Your task to perform on an android device: Open the map Image 0: 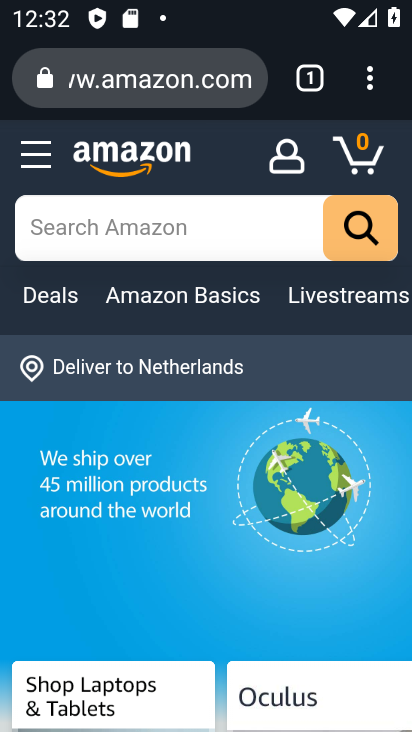
Step 0: press home button
Your task to perform on an android device: Open the map Image 1: 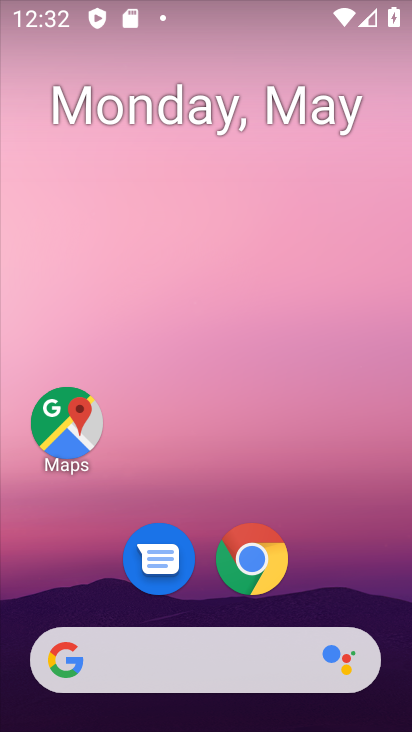
Step 1: click (74, 436)
Your task to perform on an android device: Open the map Image 2: 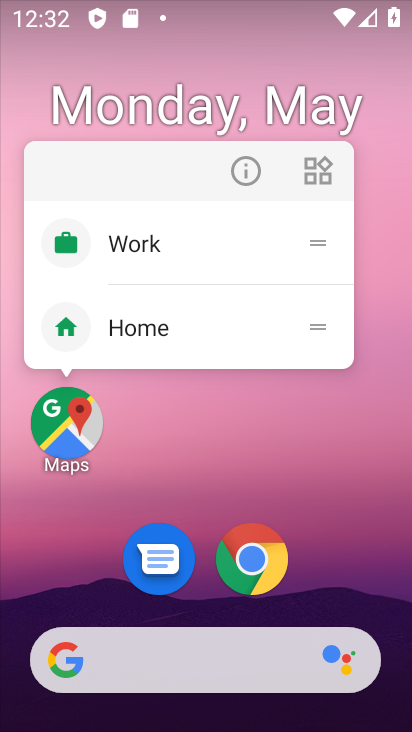
Step 2: click (74, 435)
Your task to perform on an android device: Open the map Image 3: 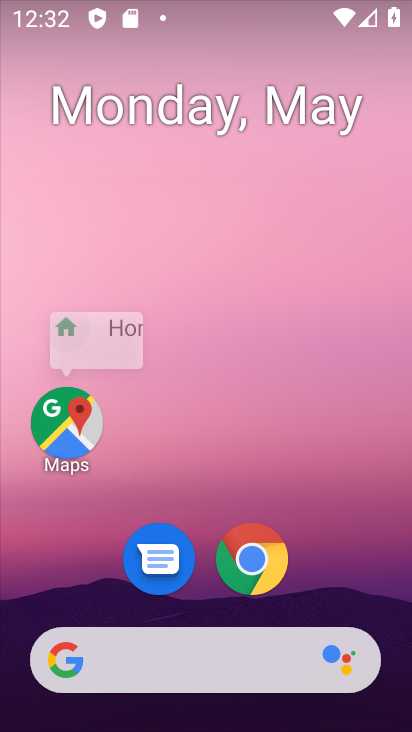
Step 3: click (74, 435)
Your task to perform on an android device: Open the map Image 4: 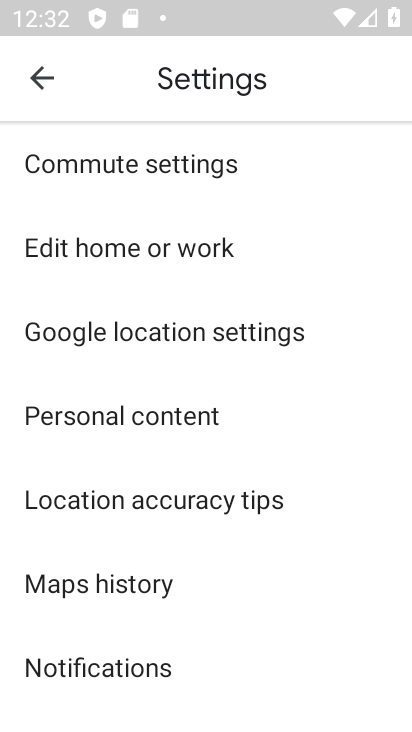
Step 4: click (51, 84)
Your task to perform on an android device: Open the map Image 5: 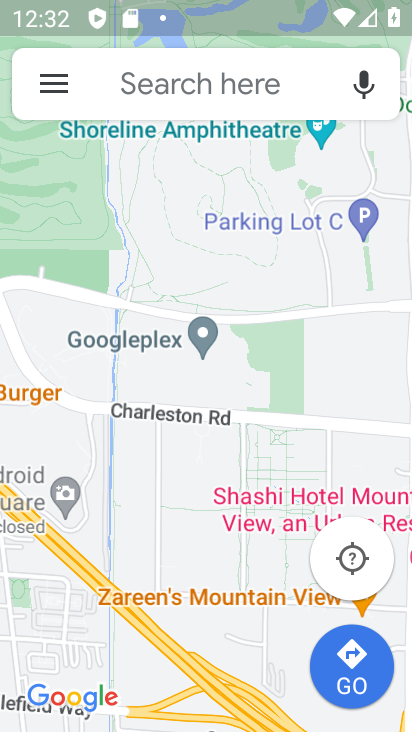
Step 5: task complete